Your task to perform on an android device: empty trash in google photos Image 0: 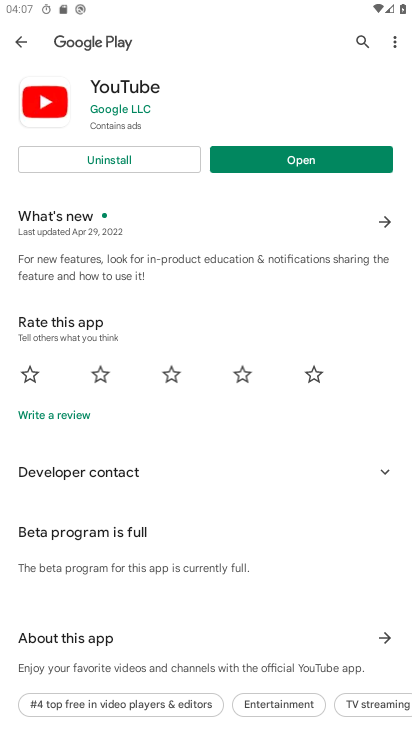
Step 0: press home button
Your task to perform on an android device: empty trash in google photos Image 1: 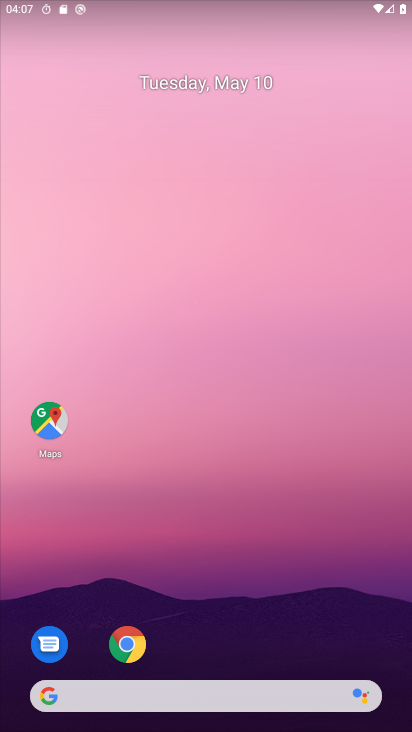
Step 1: drag from (203, 654) to (202, 94)
Your task to perform on an android device: empty trash in google photos Image 2: 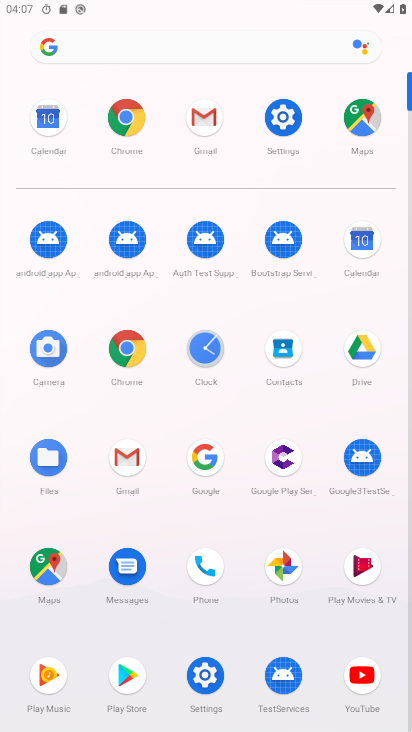
Step 2: click (280, 557)
Your task to perform on an android device: empty trash in google photos Image 3: 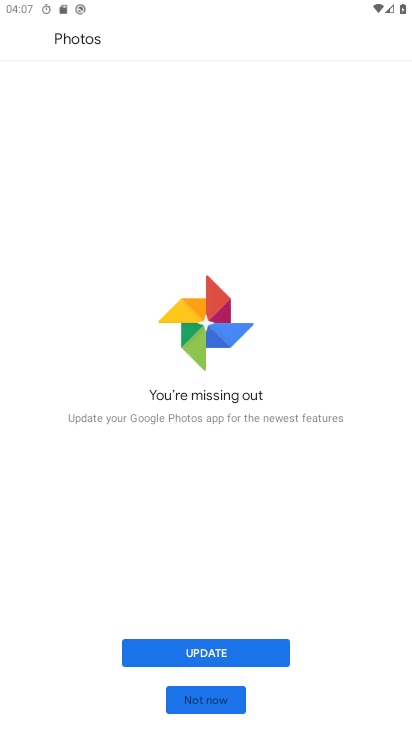
Step 3: click (201, 651)
Your task to perform on an android device: empty trash in google photos Image 4: 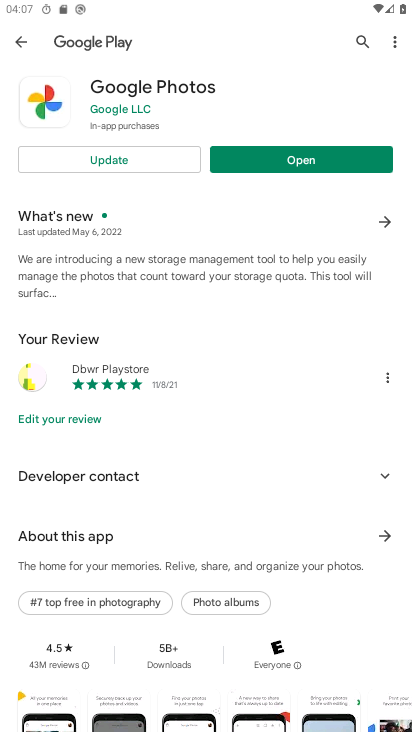
Step 4: click (148, 162)
Your task to perform on an android device: empty trash in google photos Image 5: 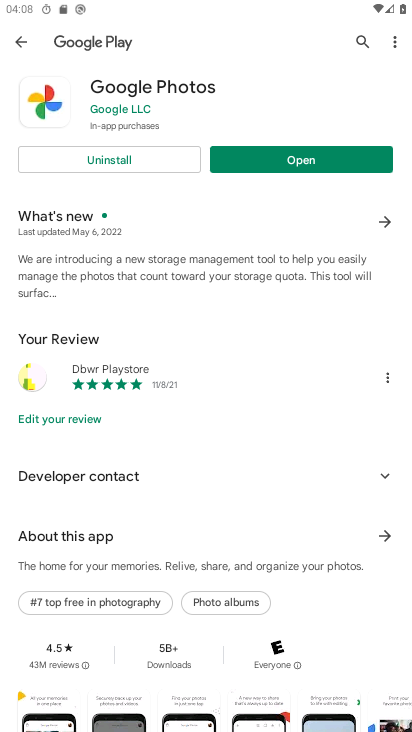
Step 5: click (302, 162)
Your task to perform on an android device: empty trash in google photos Image 6: 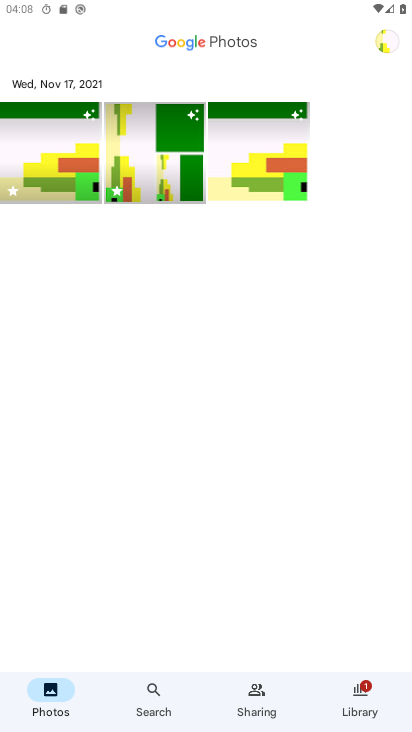
Step 6: click (143, 697)
Your task to perform on an android device: empty trash in google photos Image 7: 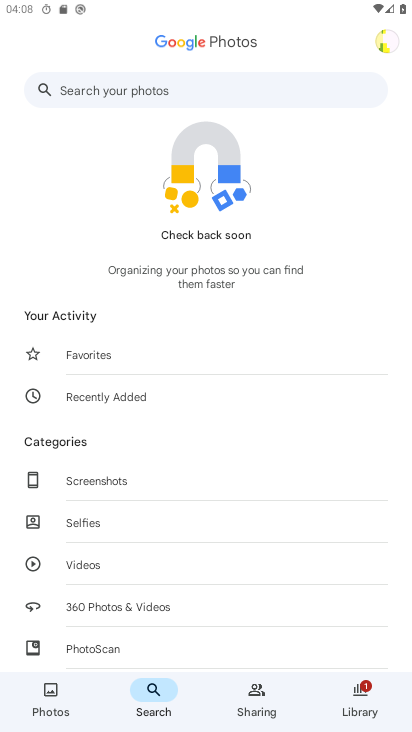
Step 7: click (129, 83)
Your task to perform on an android device: empty trash in google photos Image 8: 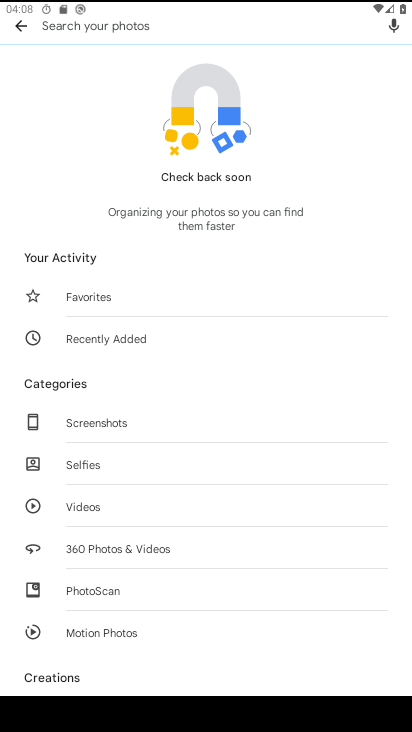
Step 8: type "trash"
Your task to perform on an android device: empty trash in google photos Image 9: 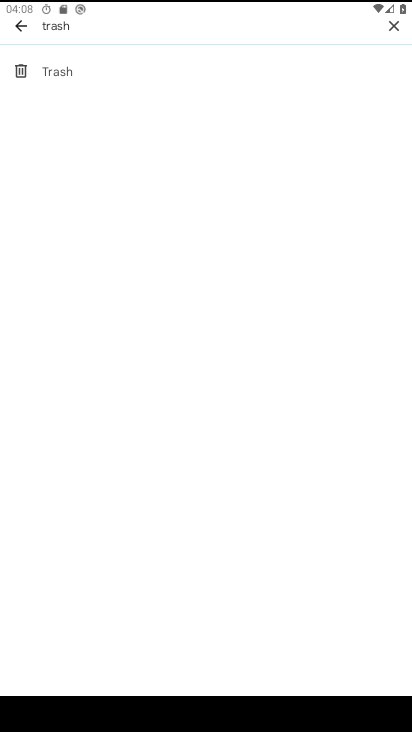
Step 9: click (58, 71)
Your task to perform on an android device: empty trash in google photos Image 10: 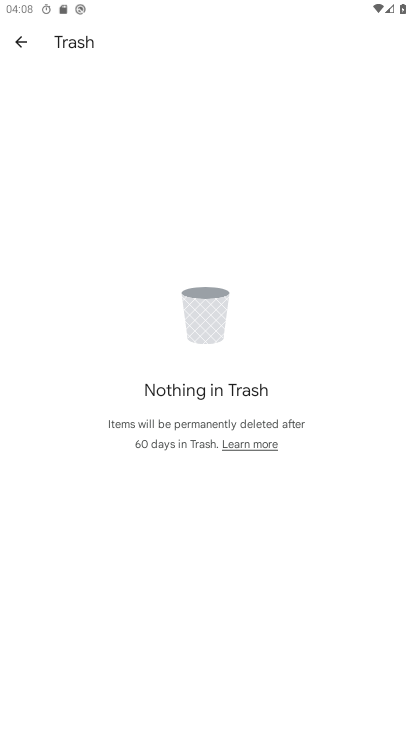
Step 10: task complete